Your task to perform on an android device: turn off airplane mode Image 0: 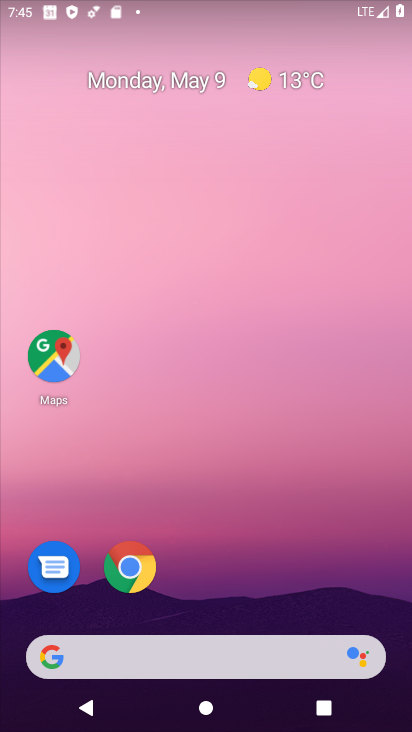
Step 0: drag from (279, 522) to (284, 127)
Your task to perform on an android device: turn off airplane mode Image 1: 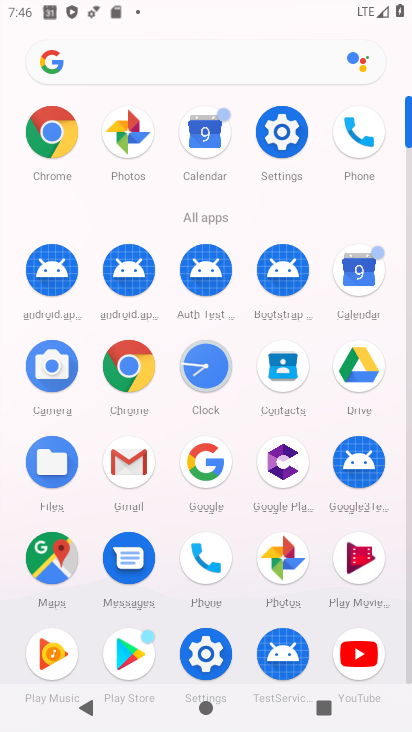
Step 1: click (284, 127)
Your task to perform on an android device: turn off airplane mode Image 2: 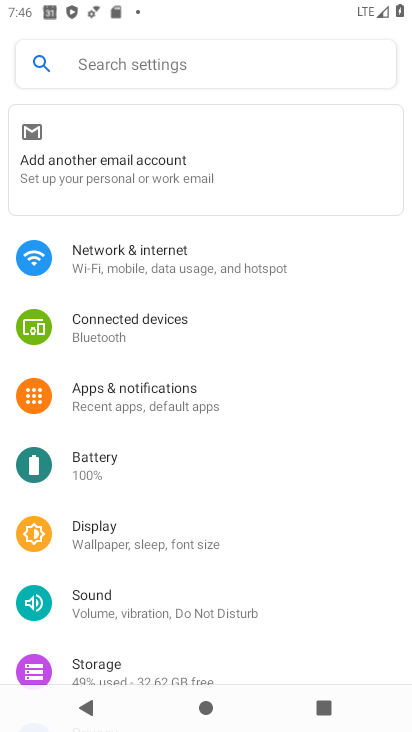
Step 2: click (161, 254)
Your task to perform on an android device: turn off airplane mode Image 3: 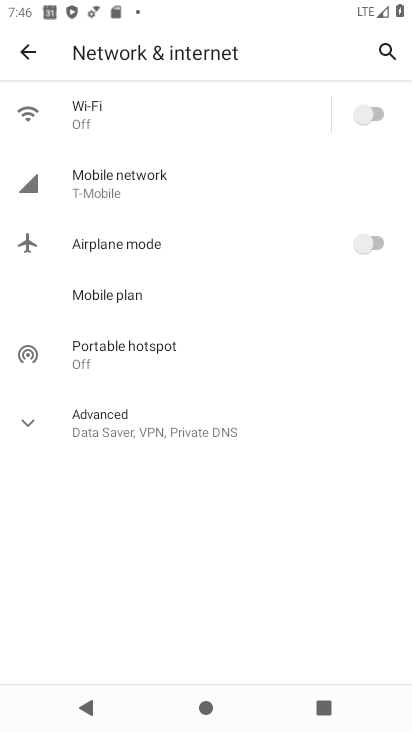
Step 3: task complete